Your task to perform on an android device: turn smart compose on in the gmail app Image 0: 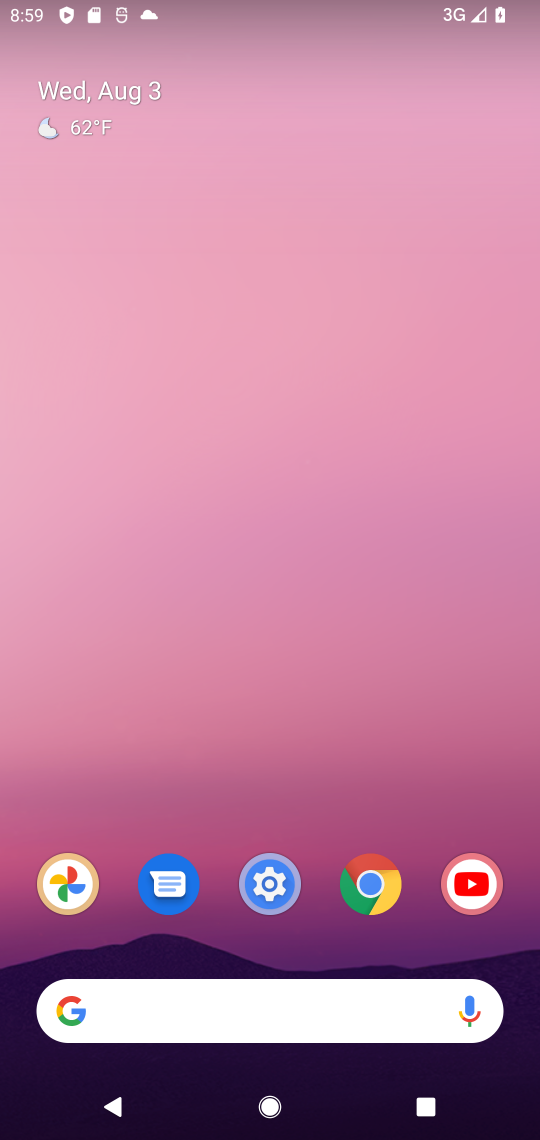
Step 0: drag from (192, 979) to (367, 337)
Your task to perform on an android device: turn smart compose on in the gmail app Image 1: 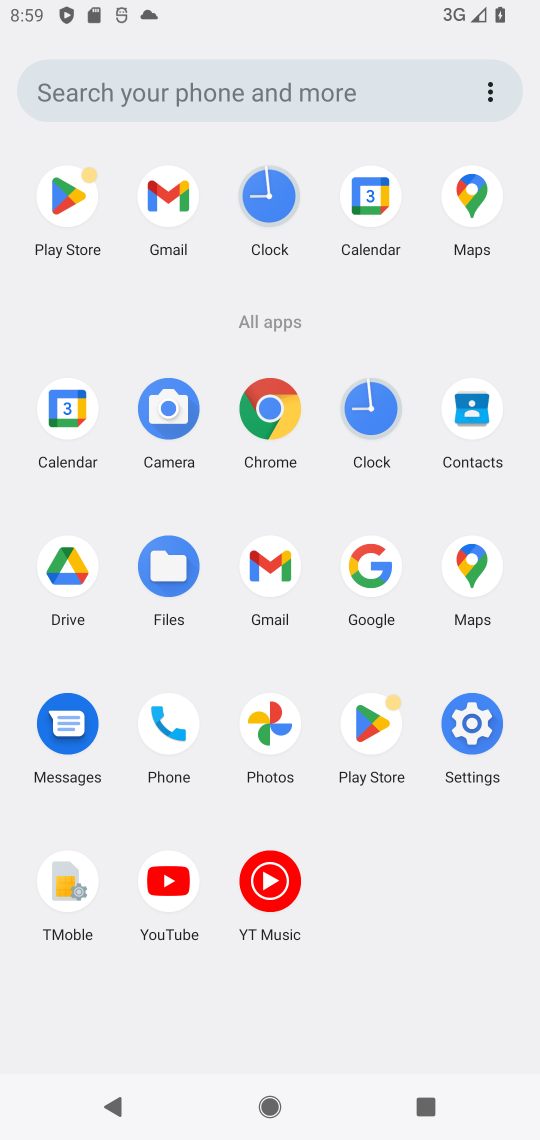
Step 1: click (262, 545)
Your task to perform on an android device: turn smart compose on in the gmail app Image 2: 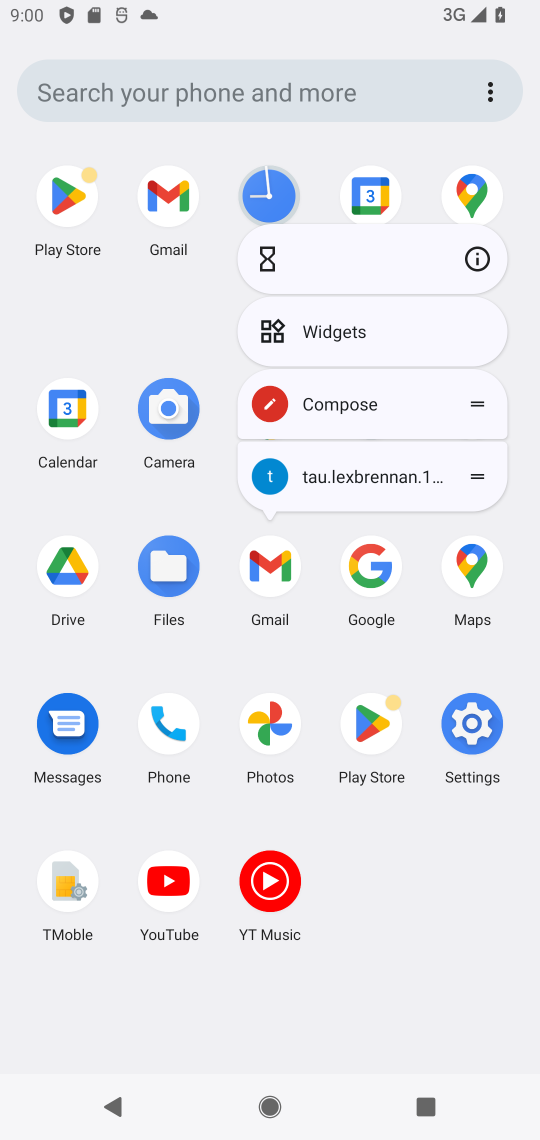
Step 2: click (464, 264)
Your task to perform on an android device: turn smart compose on in the gmail app Image 3: 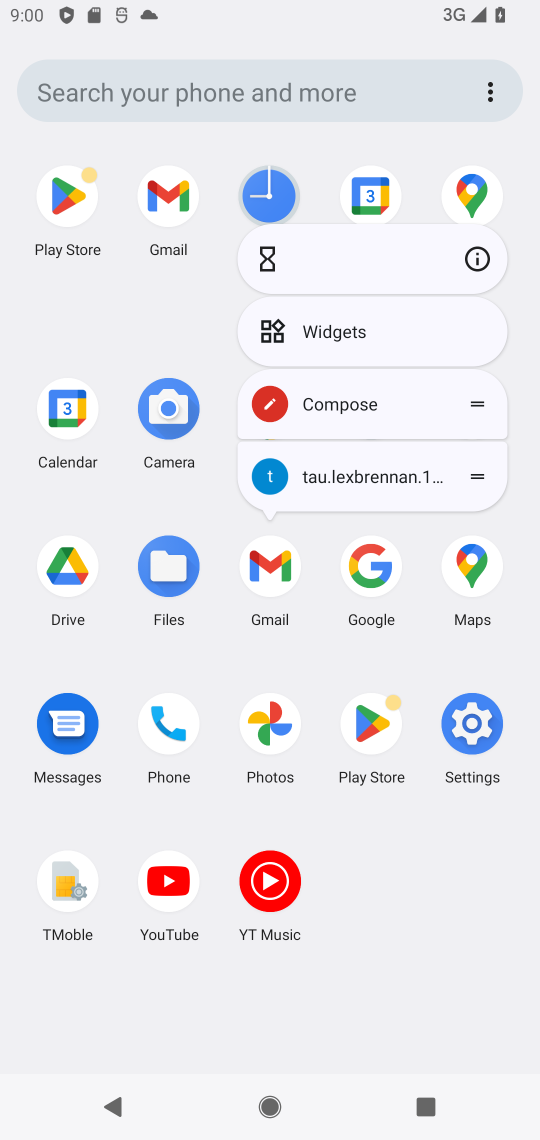
Step 3: click (469, 249)
Your task to perform on an android device: turn smart compose on in the gmail app Image 4: 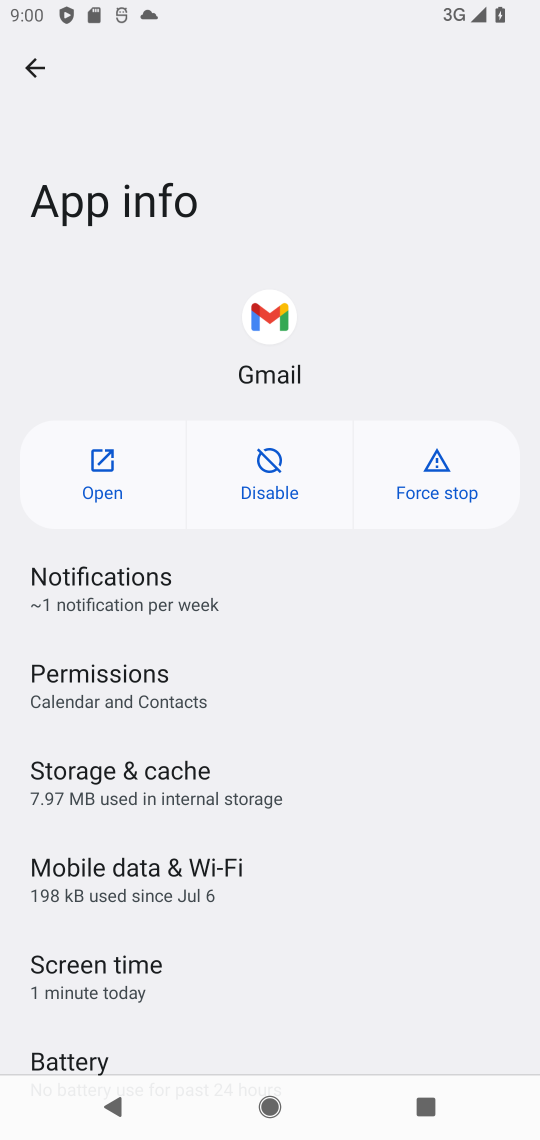
Step 4: click (84, 441)
Your task to perform on an android device: turn smart compose on in the gmail app Image 5: 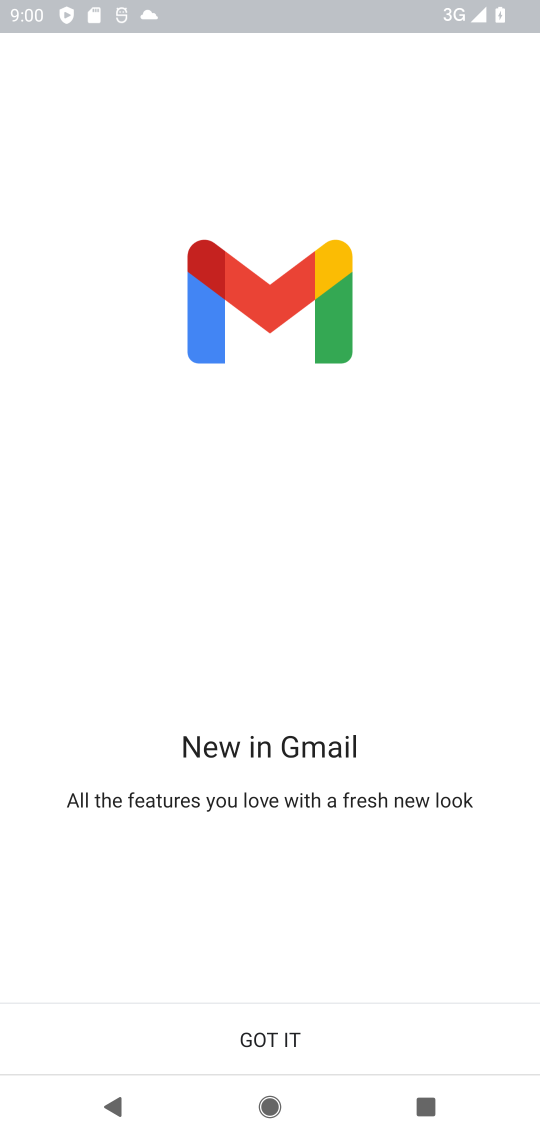
Step 5: click (212, 1050)
Your task to perform on an android device: turn smart compose on in the gmail app Image 6: 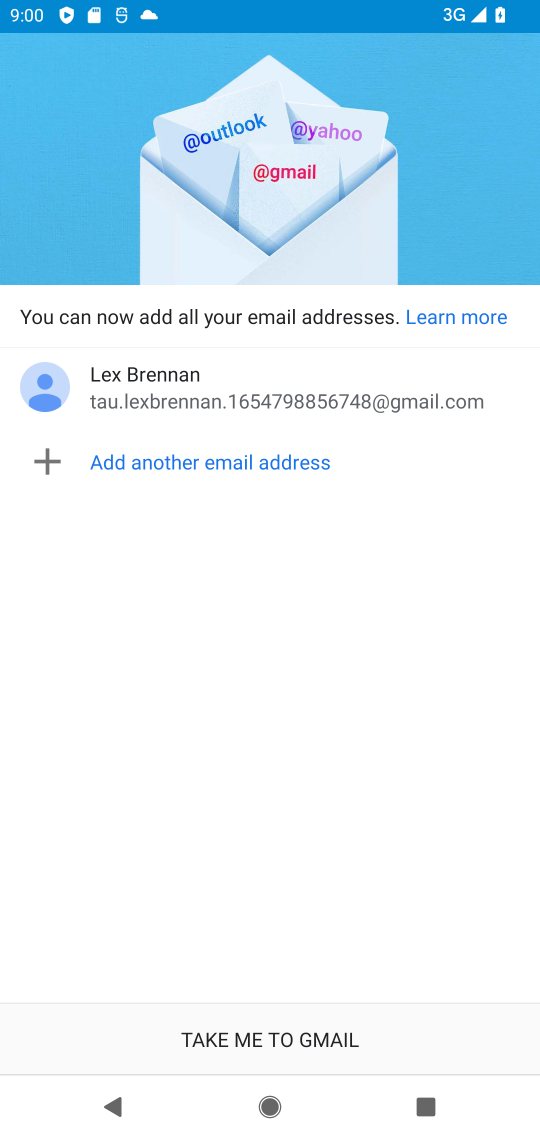
Step 6: click (243, 1006)
Your task to perform on an android device: turn smart compose on in the gmail app Image 7: 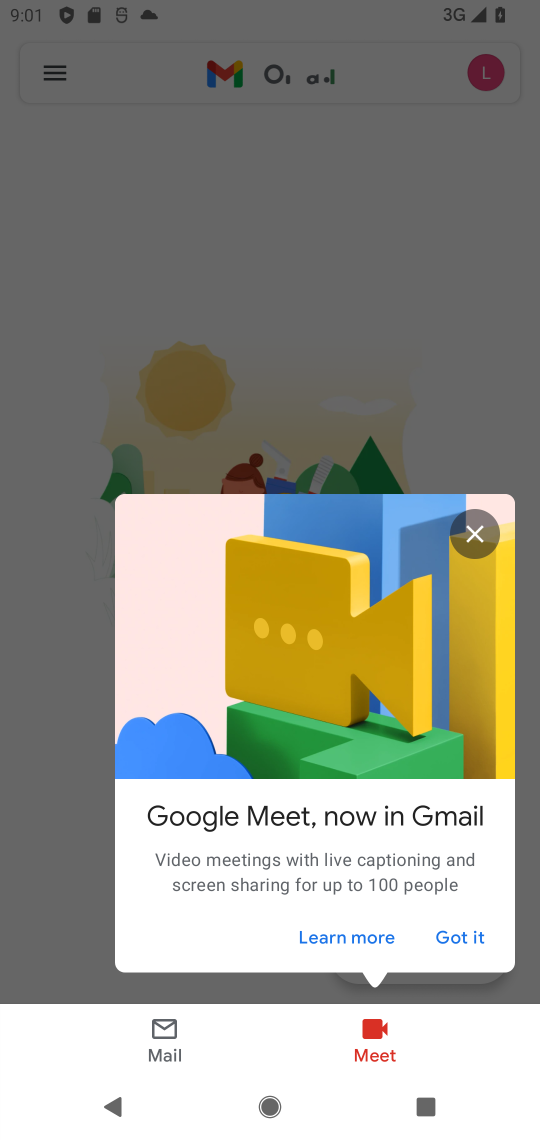
Step 7: click (455, 945)
Your task to perform on an android device: turn smart compose on in the gmail app Image 8: 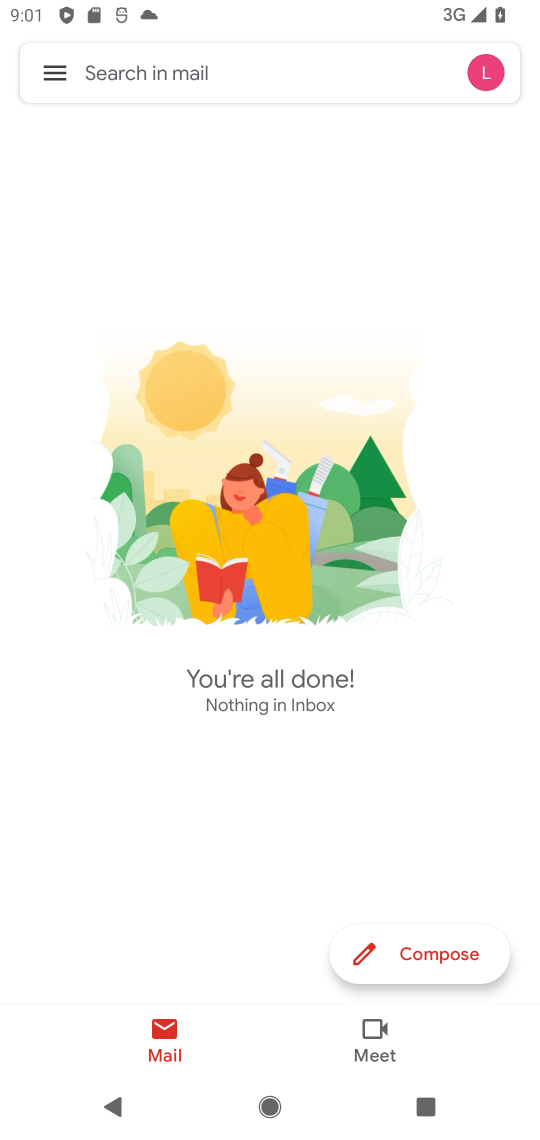
Step 8: click (54, 77)
Your task to perform on an android device: turn smart compose on in the gmail app Image 9: 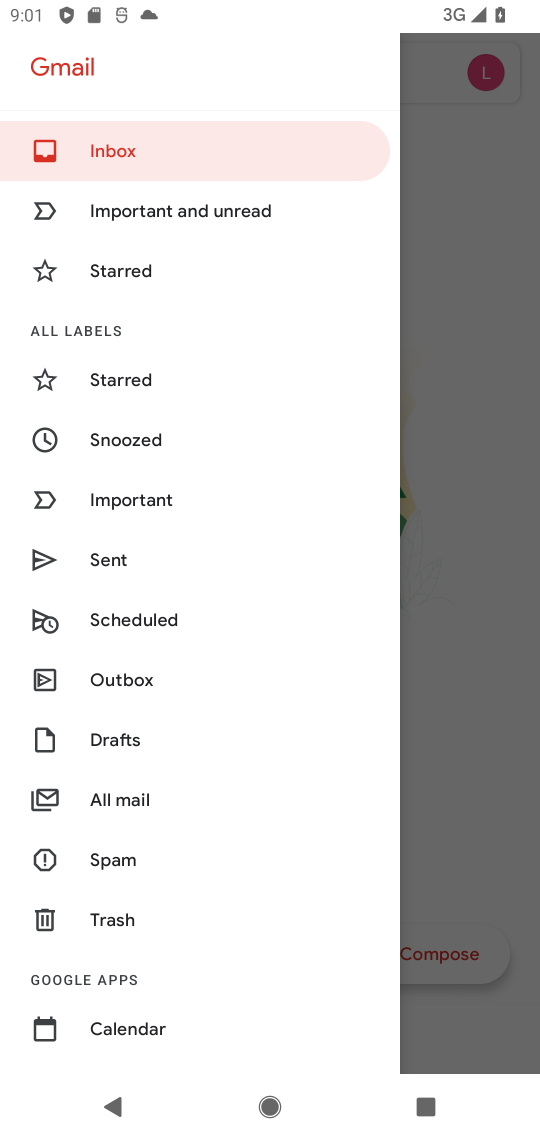
Step 9: drag from (203, 889) to (214, 234)
Your task to perform on an android device: turn smart compose on in the gmail app Image 10: 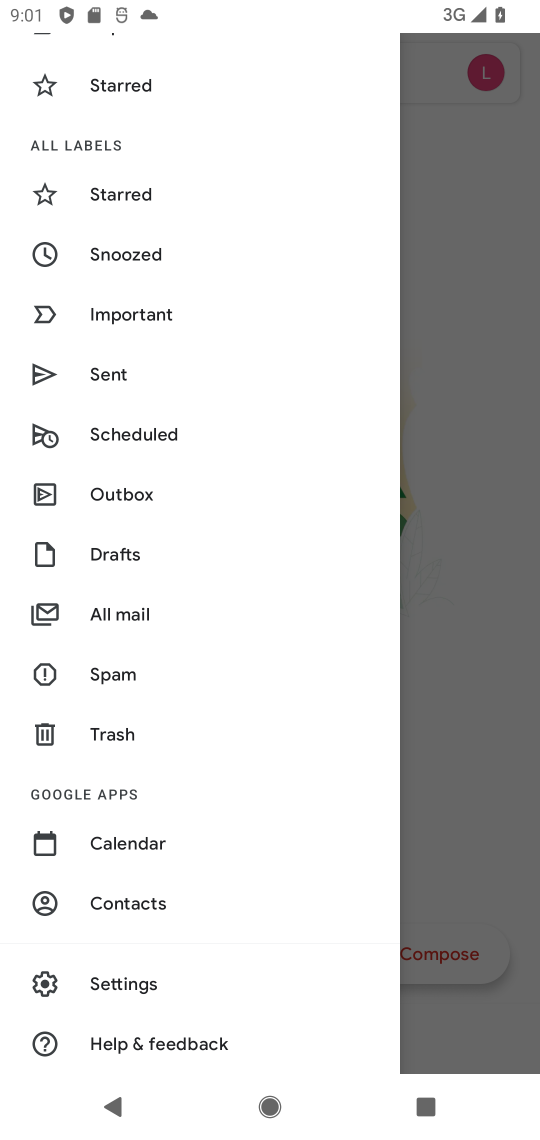
Step 10: click (133, 977)
Your task to perform on an android device: turn smart compose on in the gmail app Image 11: 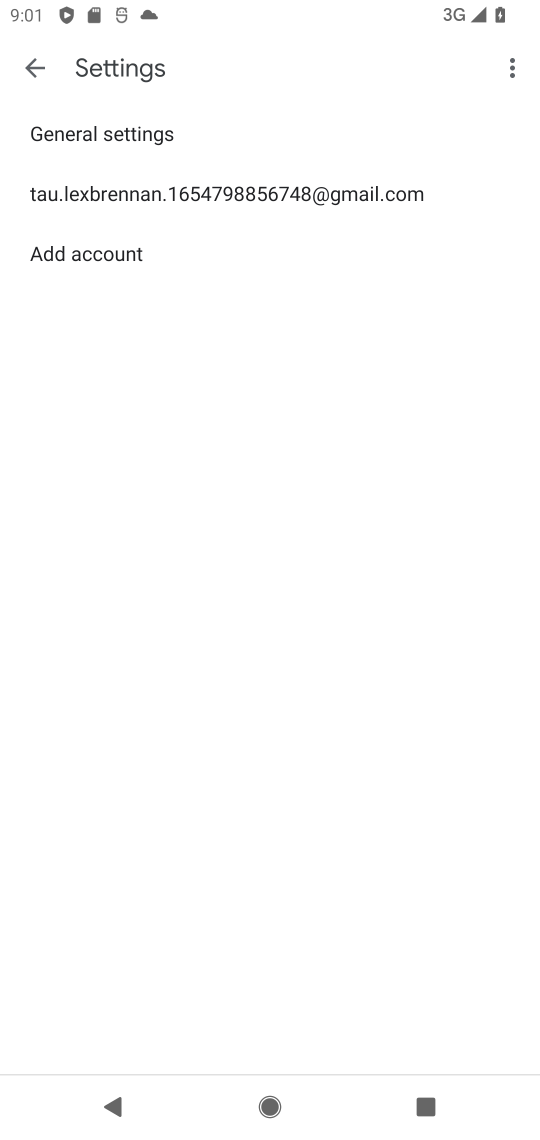
Step 11: click (207, 198)
Your task to perform on an android device: turn smart compose on in the gmail app Image 12: 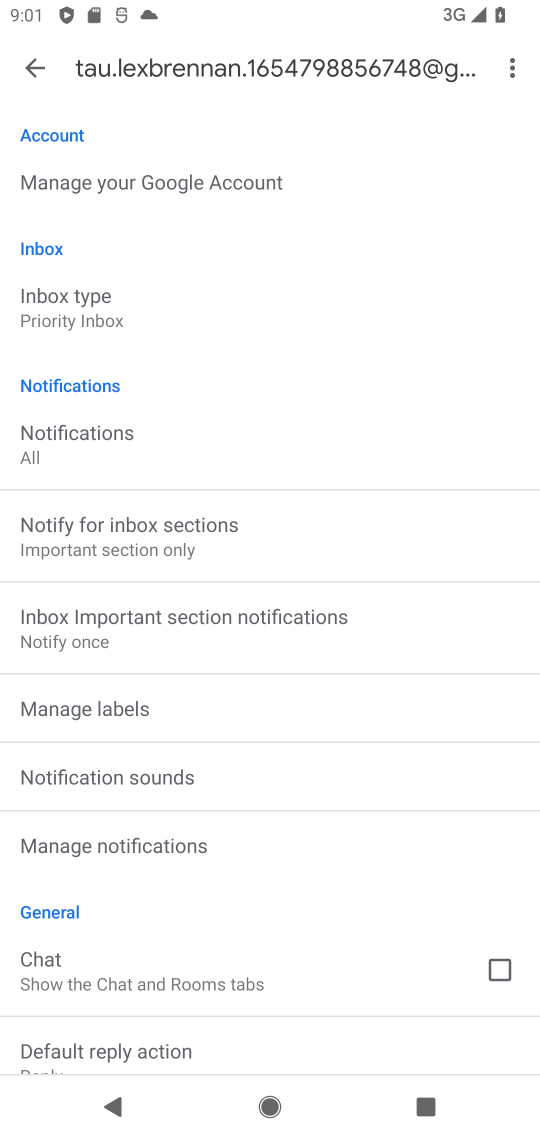
Step 12: task complete